Your task to perform on an android device: Search for seafood restaurants on Google Maps Image 0: 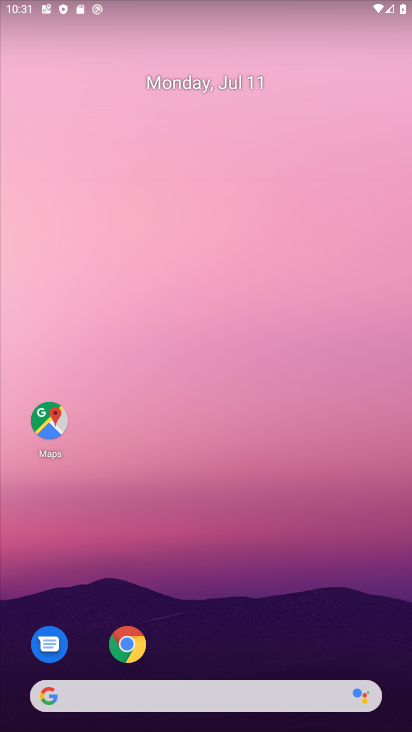
Step 0: press home button
Your task to perform on an android device: Search for seafood restaurants on Google Maps Image 1: 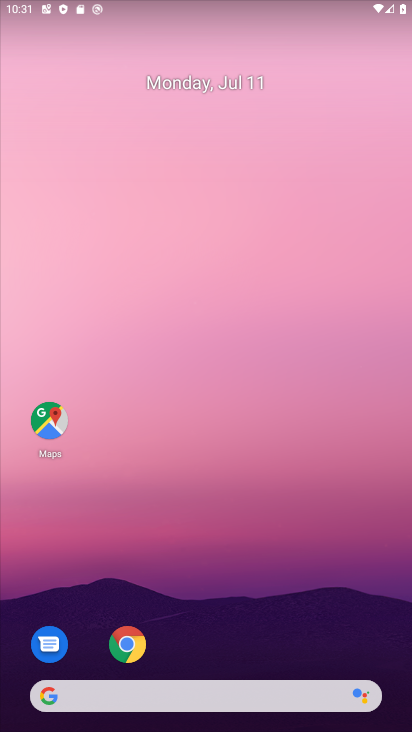
Step 1: click (47, 413)
Your task to perform on an android device: Search for seafood restaurants on Google Maps Image 2: 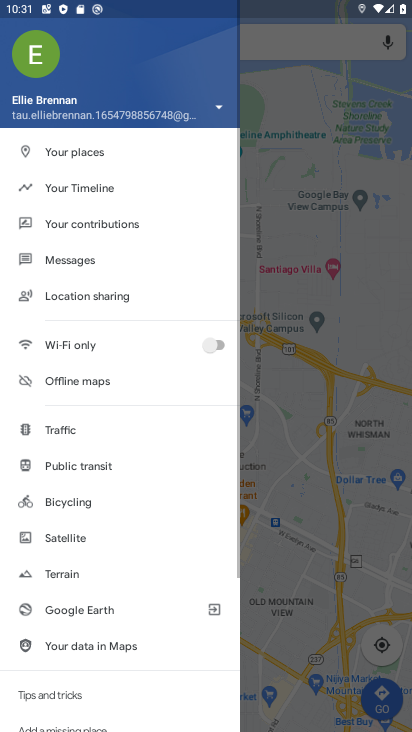
Step 2: click (298, 114)
Your task to perform on an android device: Search for seafood restaurants on Google Maps Image 3: 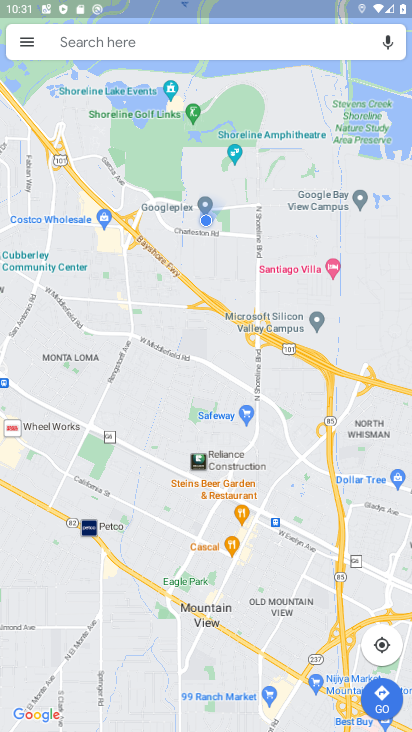
Step 3: click (127, 37)
Your task to perform on an android device: Search for seafood restaurants on Google Maps Image 4: 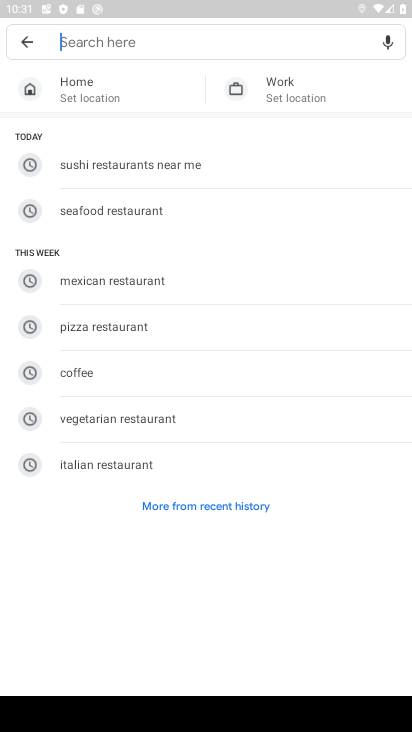
Step 4: click (119, 207)
Your task to perform on an android device: Search for seafood restaurants on Google Maps Image 5: 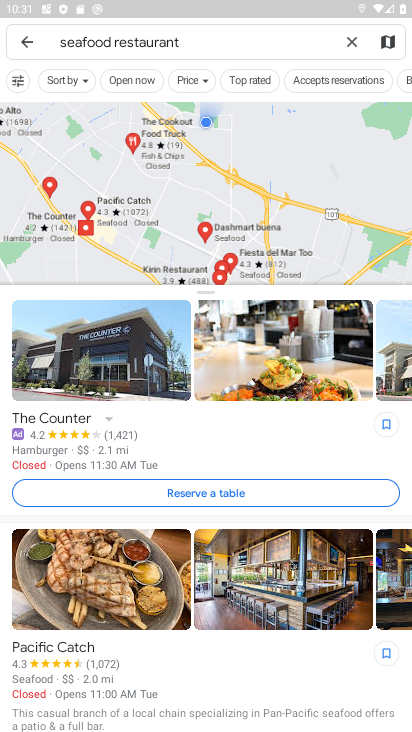
Step 5: task complete